Your task to perform on an android device: see tabs open on other devices in the chrome app Image 0: 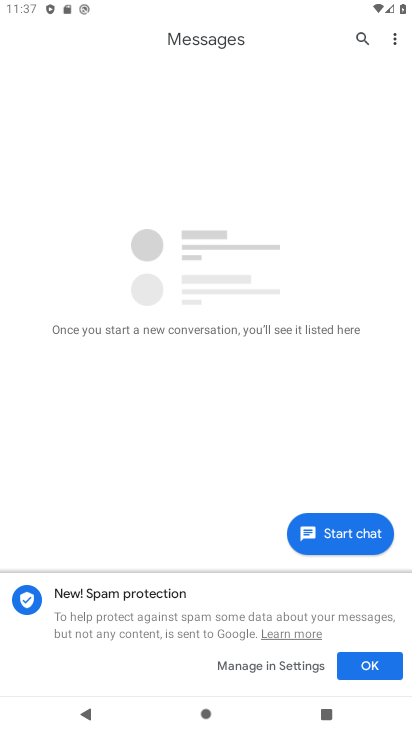
Step 0: click (286, 596)
Your task to perform on an android device: see tabs open on other devices in the chrome app Image 1: 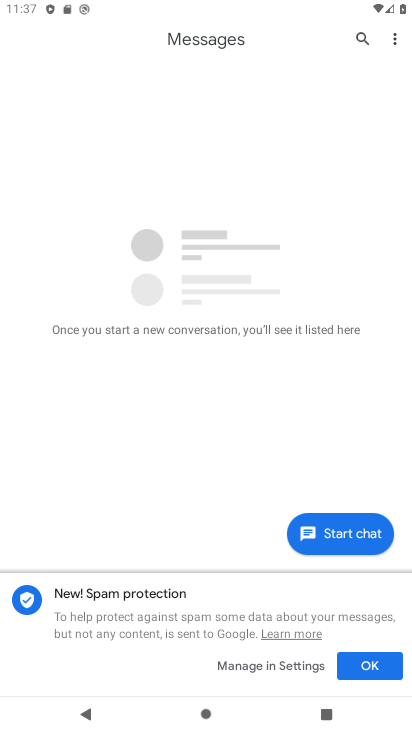
Step 1: press home button
Your task to perform on an android device: see tabs open on other devices in the chrome app Image 2: 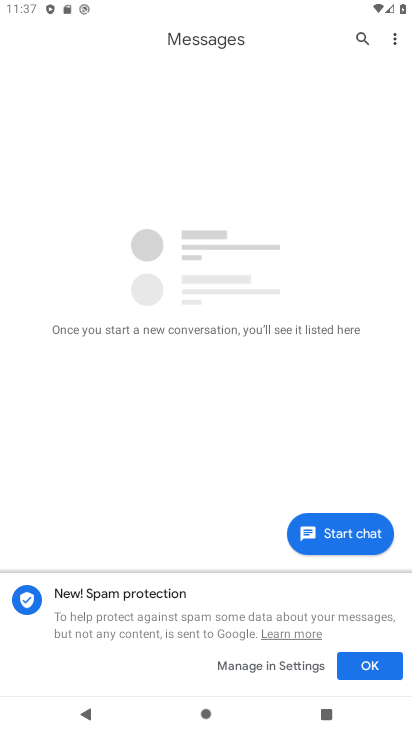
Step 2: drag from (286, 596) to (396, 572)
Your task to perform on an android device: see tabs open on other devices in the chrome app Image 3: 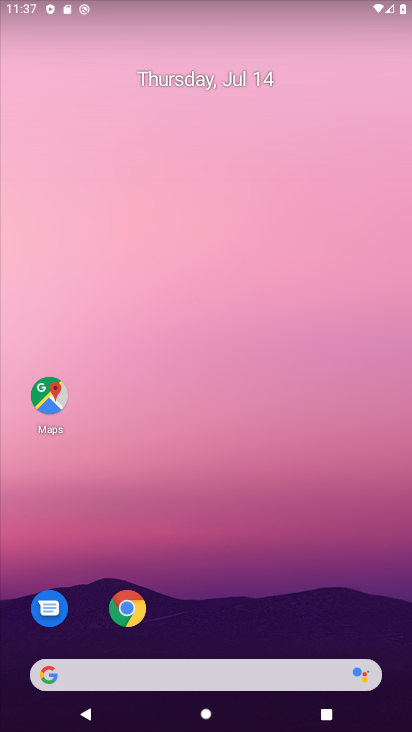
Step 3: click (121, 610)
Your task to perform on an android device: see tabs open on other devices in the chrome app Image 4: 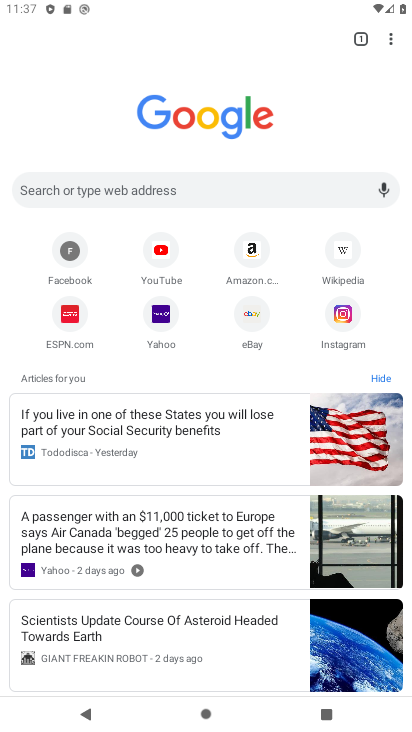
Step 4: click (354, 38)
Your task to perform on an android device: see tabs open on other devices in the chrome app Image 5: 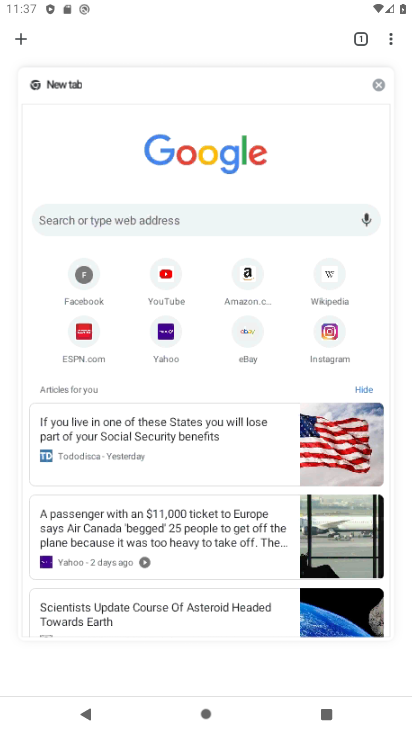
Step 5: click (275, 47)
Your task to perform on an android device: see tabs open on other devices in the chrome app Image 6: 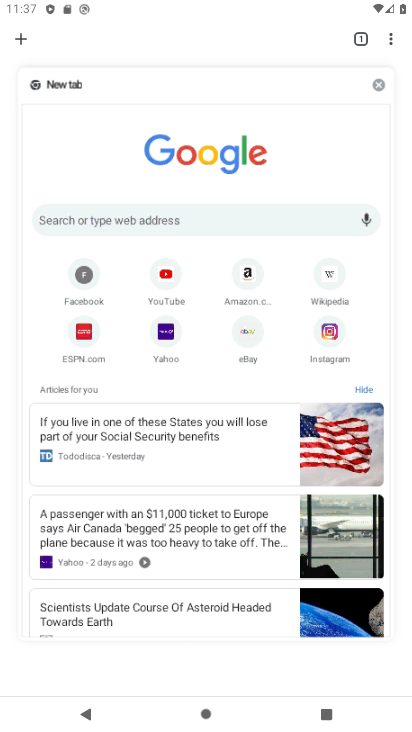
Step 6: click (275, 47)
Your task to perform on an android device: see tabs open on other devices in the chrome app Image 7: 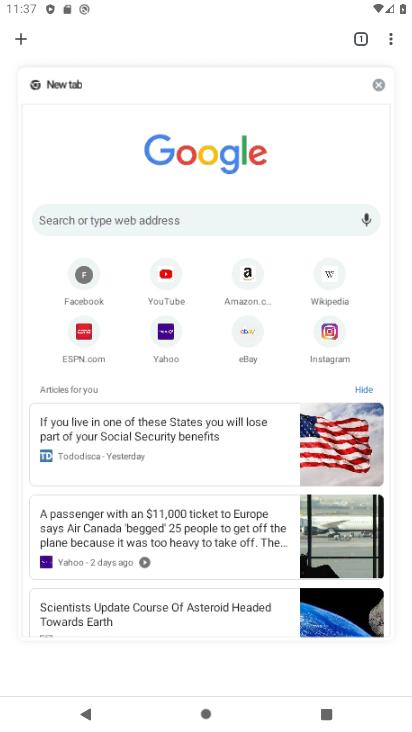
Step 7: click (238, 71)
Your task to perform on an android device: see tabs open on other devices in the chrome app Image 8: 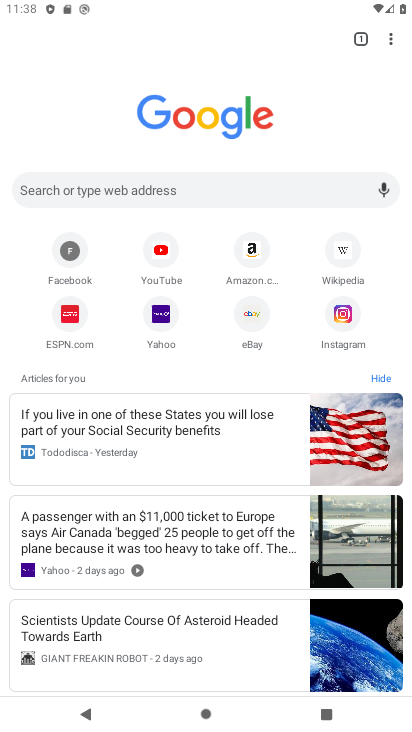
Step 8: click (388, 46)
Your task to perform on an android device: see tabs open on other devices in the chrome app Image 9: 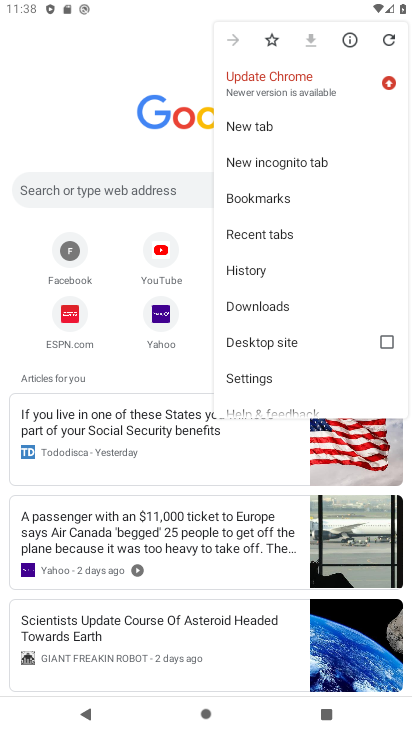
Step 9: click (257, 240)
Your task to perform on an android device: see tabs open on other devices in the chrome app Image 10: 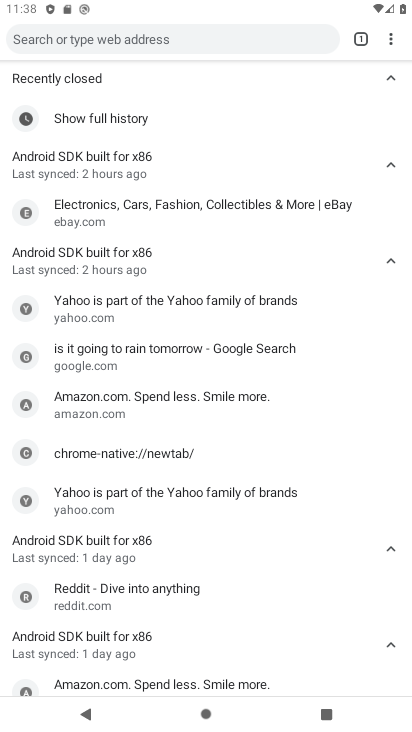
Step 10: task complete